Your task to perform on an android device: toggle pop-ups in chrome Image 0: 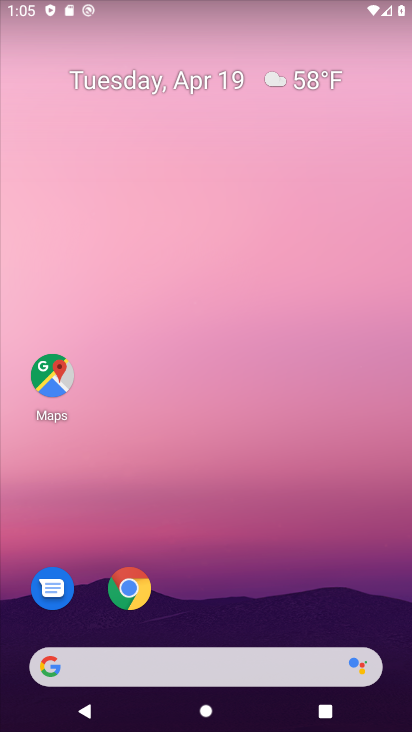
Step 0: click (149, 594)
Your task to perform on an android device: toggle pop-ups in chrome Image 1: 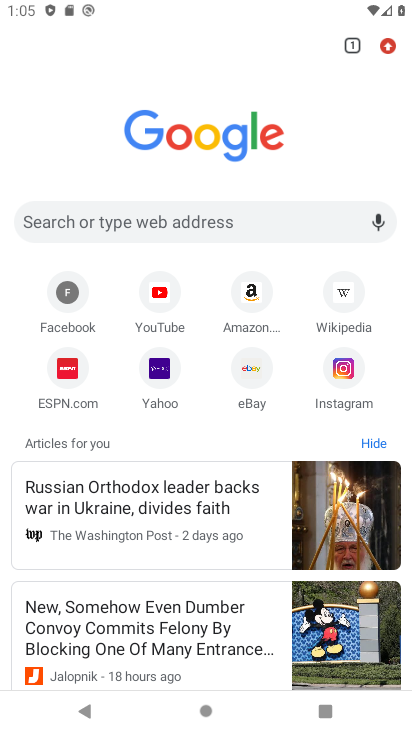
Step 1: click (389, 41)
Your task to perform on an android device: toggle pop-ups in chrome Image 2: 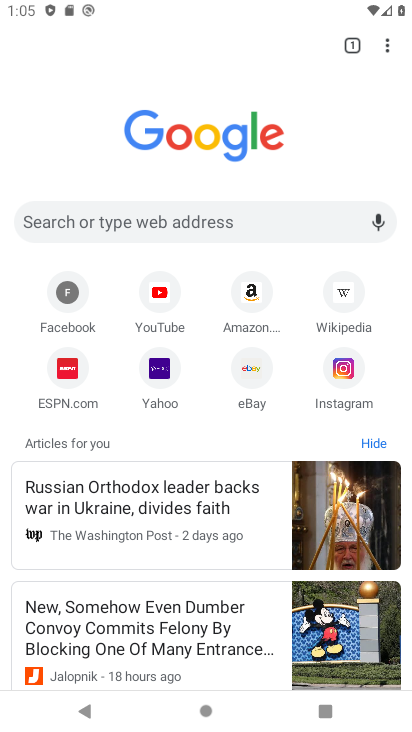
Step 2: click (389, 41)
Your task to perform on an android device: toggle pop-ups in chrome Image 3: 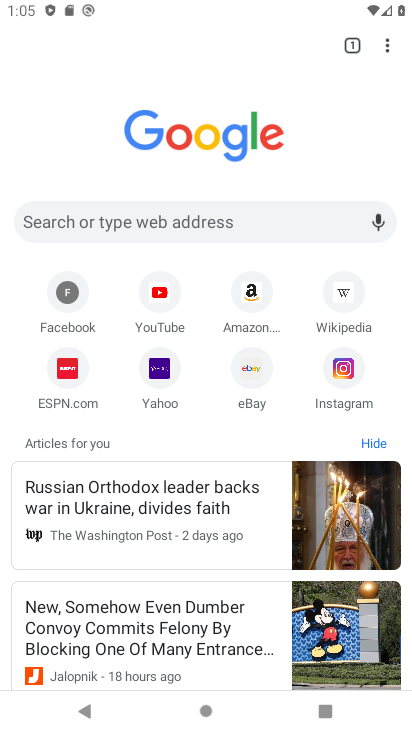
Step 3: click (387, 46)
Your task to perform on an android device: toggle pop-ups in chrome Image 4: 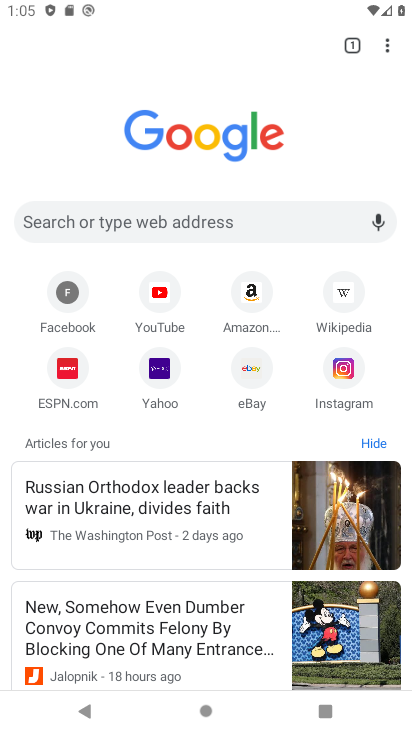
Step 4: drag from (384, 41) to (254, 436)
Your task to perform on an android device: toggle pop-ups in chrome Image 5: 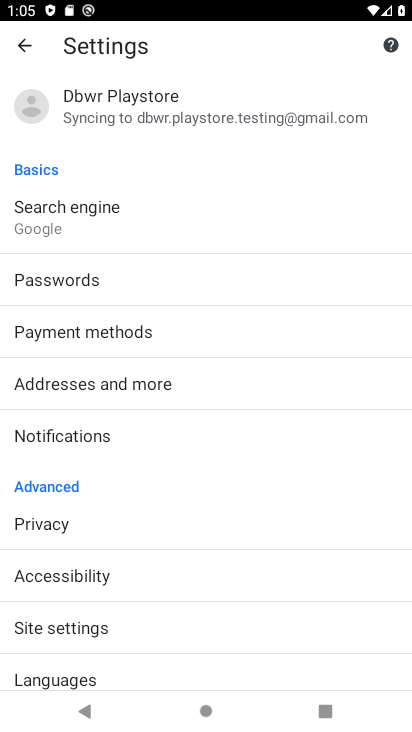
Step 5: drag from (172, 548) to (172, 308)
Your task to perform on an android device: toggle pop-ups in chrome Image 6: 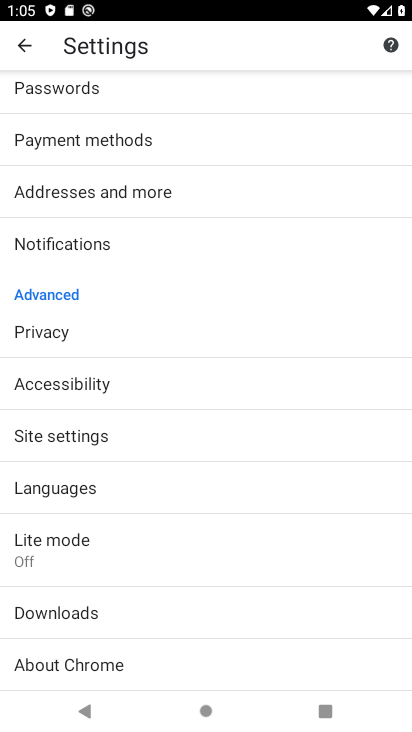
Step 6: click (122, 446)
Your task to perform on an android device: toggle pop-ups in chrome Image 7: 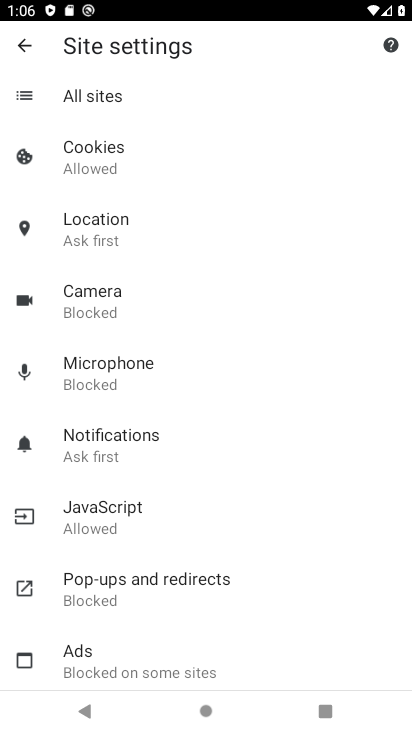
Step 7: click (198, 586)
Your task to perform on an android device: toggle pop-ups in chrome Image 8: 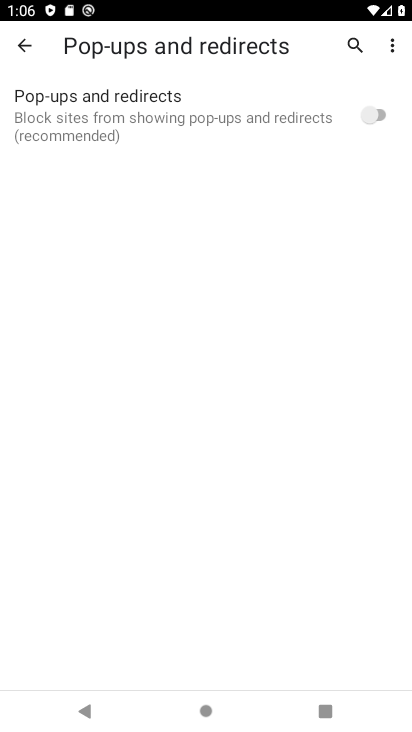
Step 8: click (398, 124)
Your task to perform on an android device: toggle pop-ups in chrome Image 9: 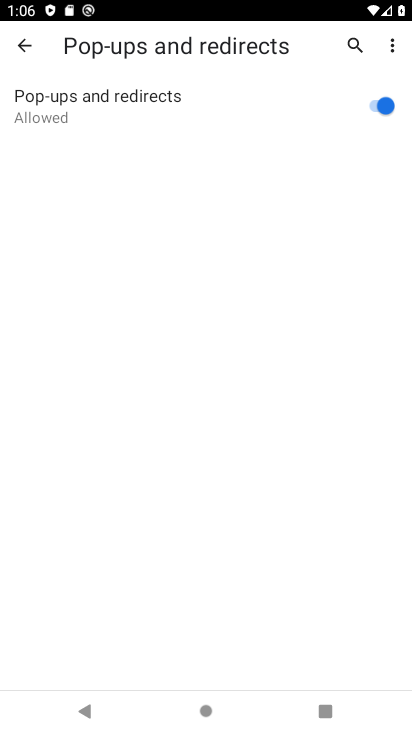
Step 9: click (382, 110)
Your task to perform on an android device: toggle pop-ups in chrome Image 10: 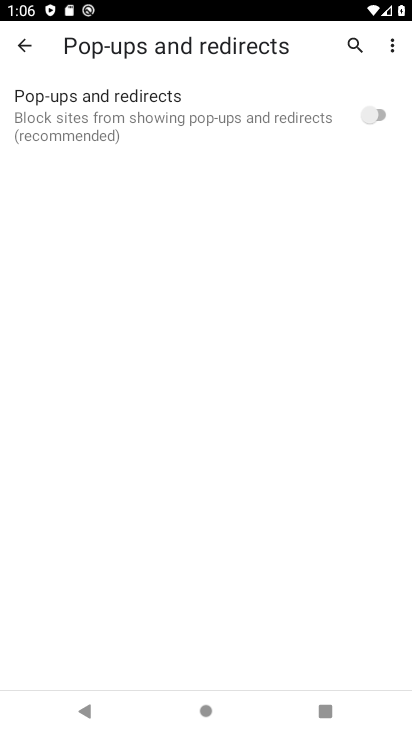
Step 10: click (387, 116)
Your task to perform on an android device: toggle pop-ups in chrome Image 11: 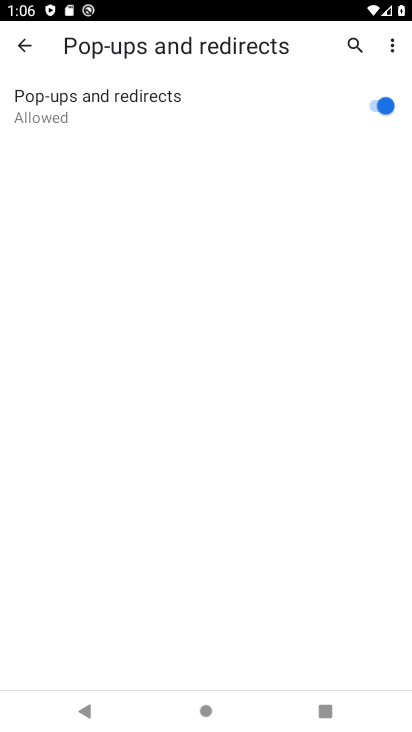
Step 11: task complete